Your task to perform on an android device: remove spam from my inbox in the gmail app Image 0: 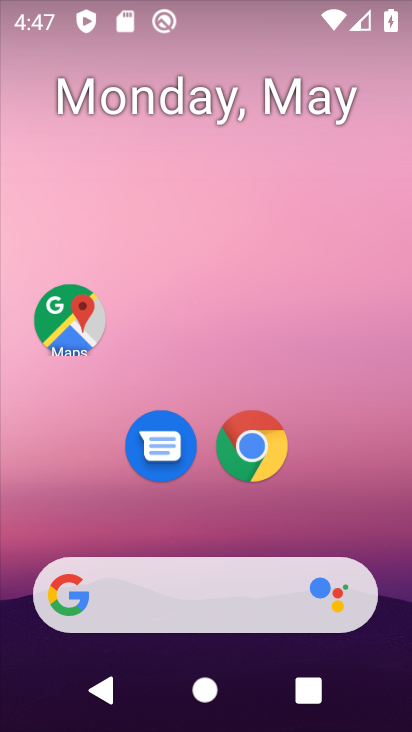
Step 0: drag from (325, 474) to (237, 34)
Your task to perform on an android device: remove spam from my inbox in the gmail app Image 1: 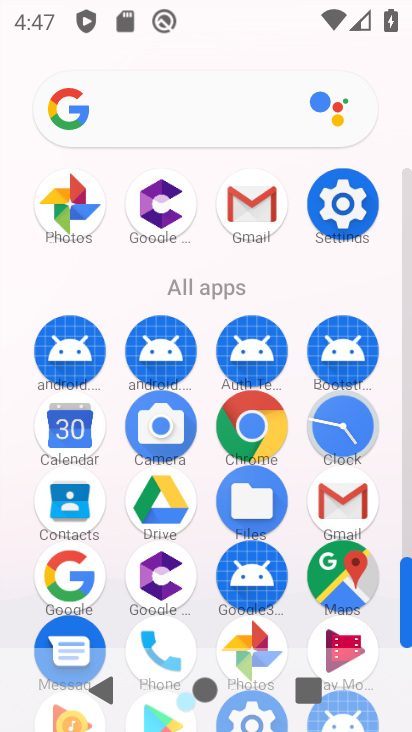
Step 1: click (251, 218)
Your task to perform on an android device: remove spam from my inbox in the gmail app Image 2: 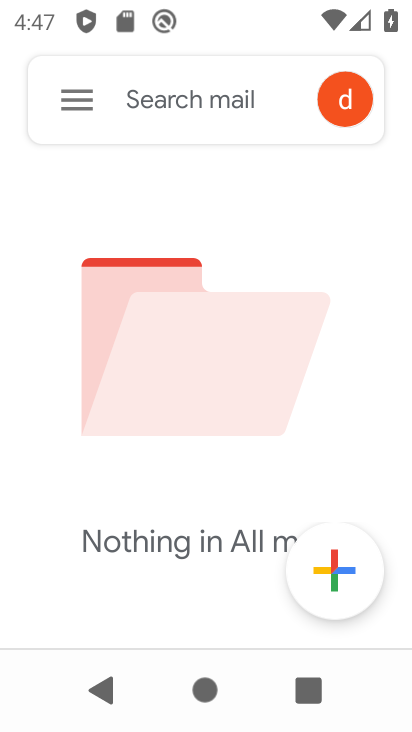
Step 2: click (66, 93)
Your task to perform on an android device: remove spam from my inbox in the gmail app Image 3: 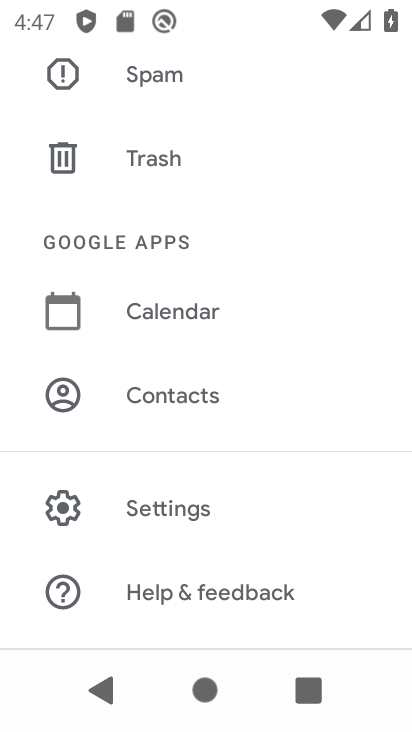
Step 3: click (81, 98)
Your task to perform on an android device: remove spam from my inbox in the gmail app Image 4: 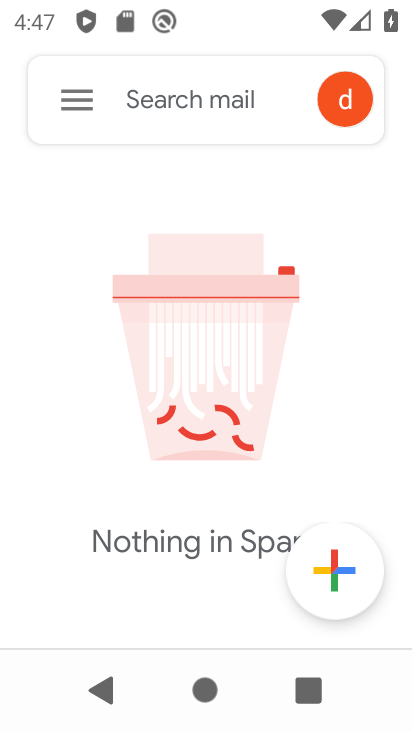
Step 4: click (52, 98)
Your task to perform on an android device: remove spam from my inbox in the gmail app Image 5: 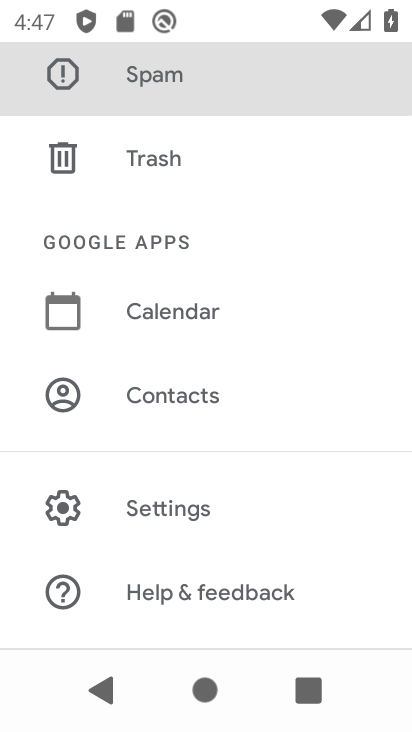
Step 5: click (139, 96)
Your task to perform on an android device: remove spam from my inbox in the gmail app Image 6: 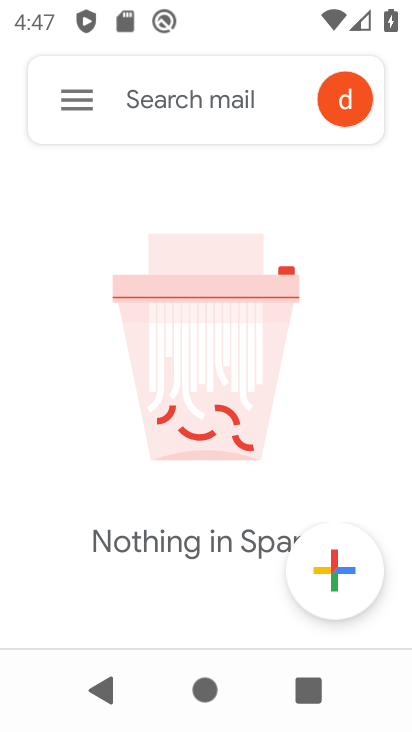
Step 6: task complete